Your task to perform on an android device: turn notification dots on Image 0: 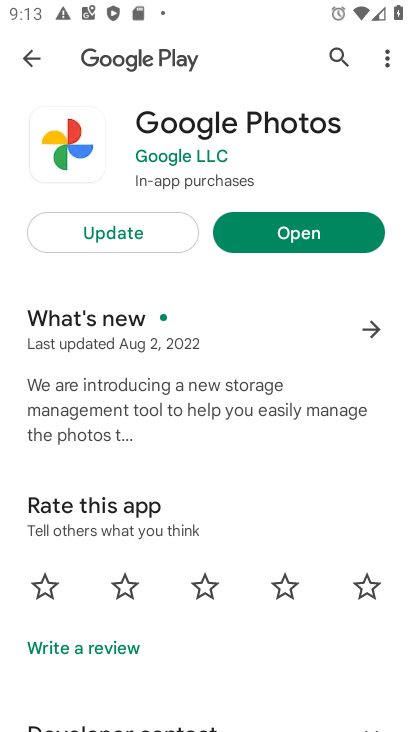
Step 0: press home button
Your task to perform on an android device: turn notification dots on Image 1: 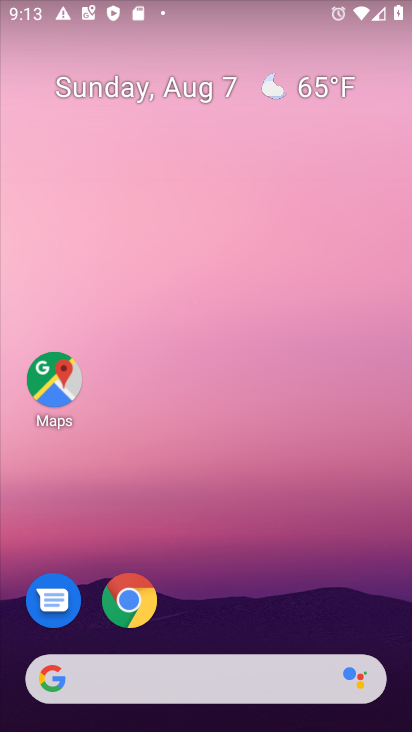
Step 1: drag from (203, 533) to (174, 203)
Your task to perform on an android device: turn notification dots on Image 2: 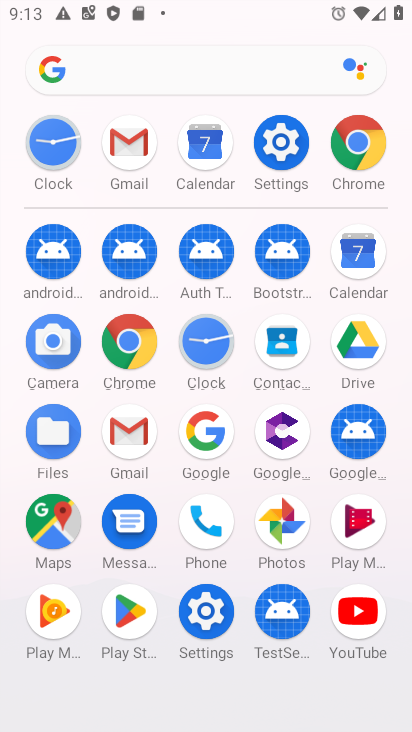
Step 2: click (202, 611)
Your task to perform on an android device: turn notification dots on Image 3: 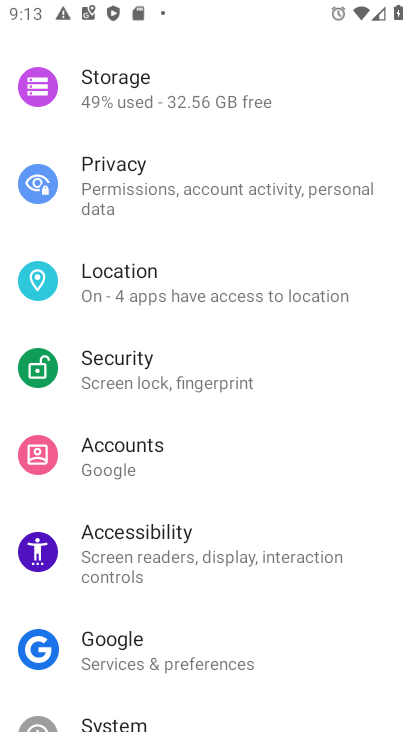
Step 3: drag from (192, 632) to (192, 360)
Your task to perform on an android device: turn notification dots on Image 4: 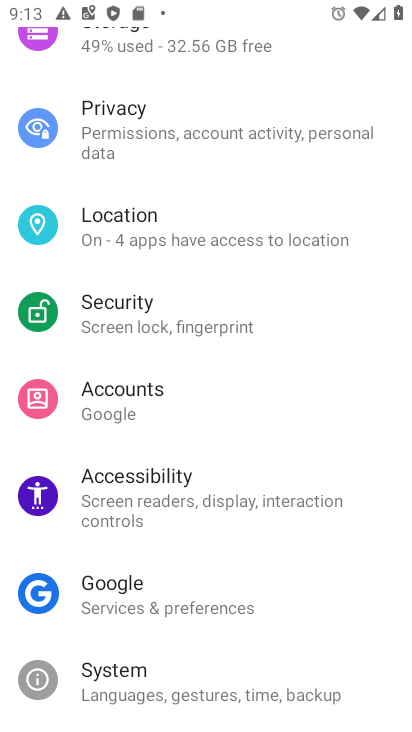
Step 4: drag from (245, 481) to (20, 652)
Your task to perform on an android device: turn notification dots on Image 5: 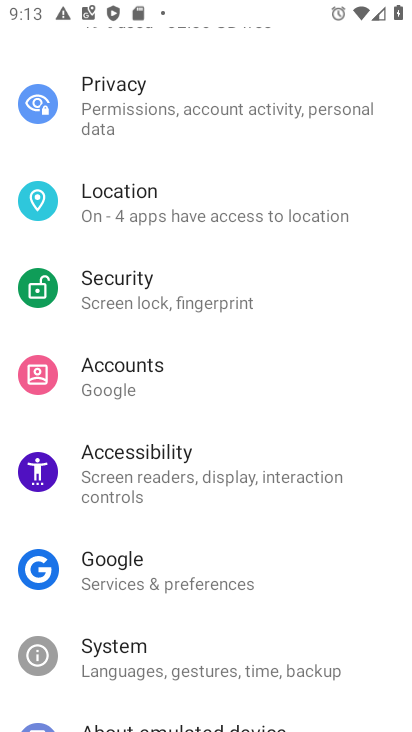
Step 5: drag from (135, 403) to (87, 608)
Your task to perform on an android device: turn notification dots on Image 6: 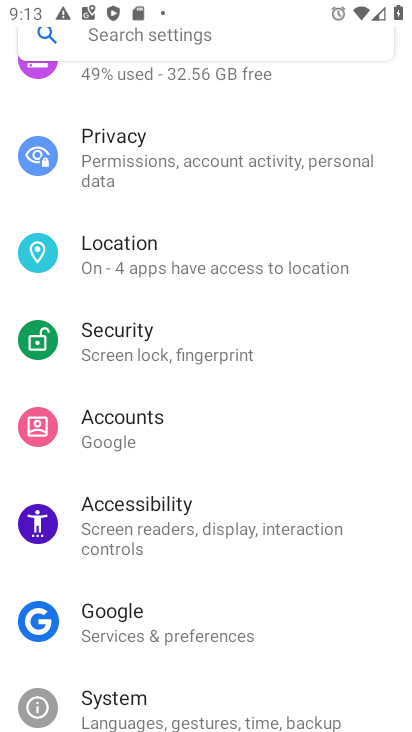
Step 6: drag from (201, 188) to (113, 720)
Your task to perform on an android device: turn notification dots on Image 7: 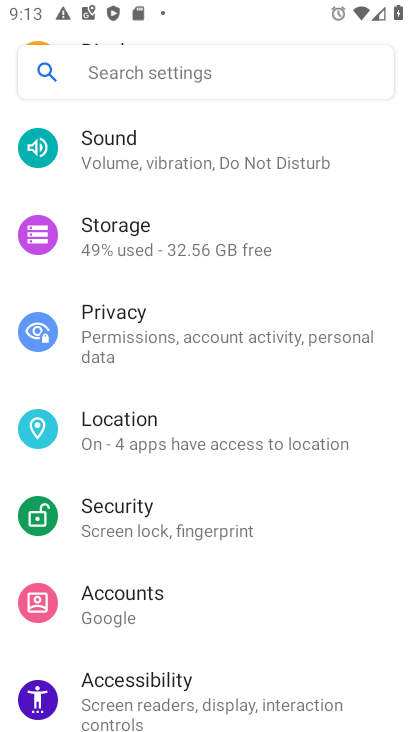
Step 7: drag from (245, 240) to (168, 509)
Your task to perform on an android device: turn notification dots on Image 8: 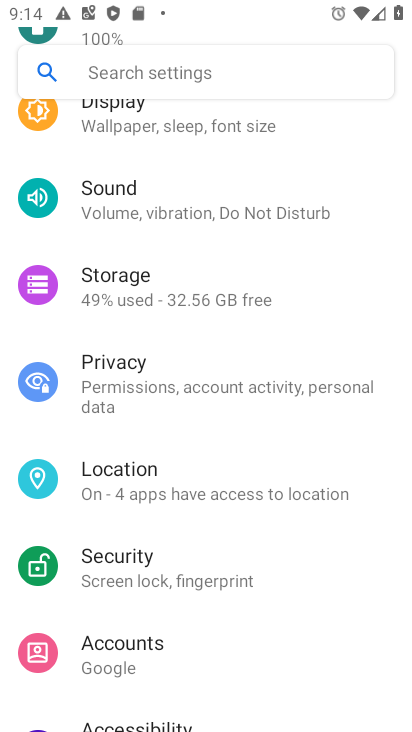
Step 8: drag from (225, 401) to (173, 702)
Your task to perform on an android device: turn notification dots on Image 9: 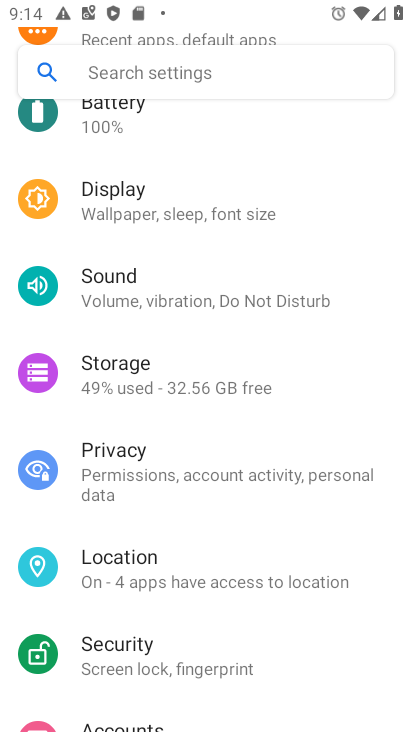
Step 9: drag from (146, 217) to (124, 706)
Your task to perform on an android device: turn notification dots on Image 10: 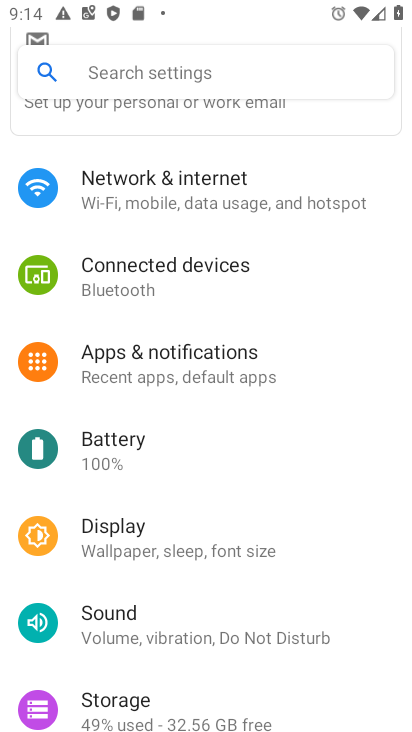
Step 10: click (219, 328)
Your task to perform on an android device: turn notification dots on Image 11: 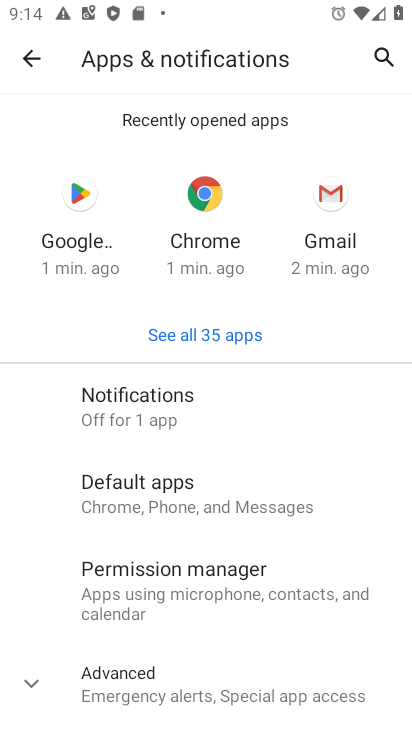
Step 11: drag from (145, 603) to (193, 344)
Your task to perform on an android device: turn notification dots on Image 12: 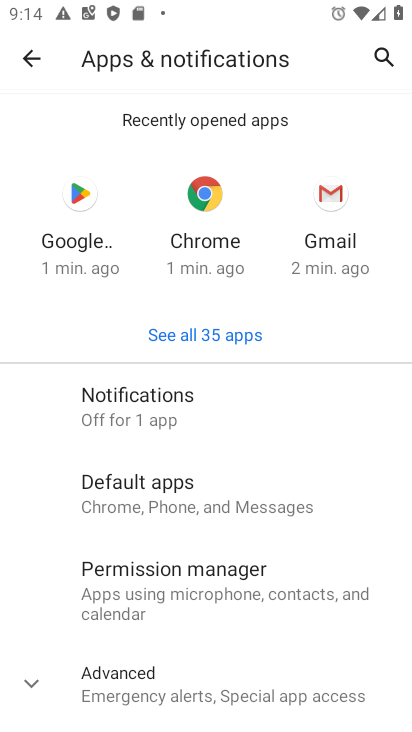
Step 12: click (113, 680)
Your task to perform on an android device: turn notification dots on Image 13: 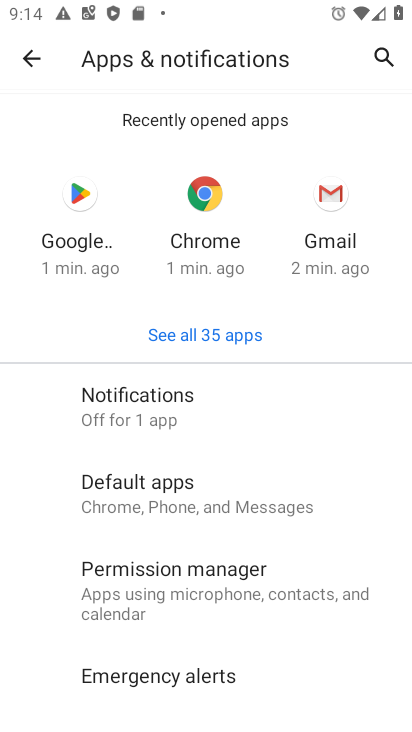
Step 13: drag from (302, 618) to (291, 353)
Your task to perform on an android device: turn notification dots on Image 14: 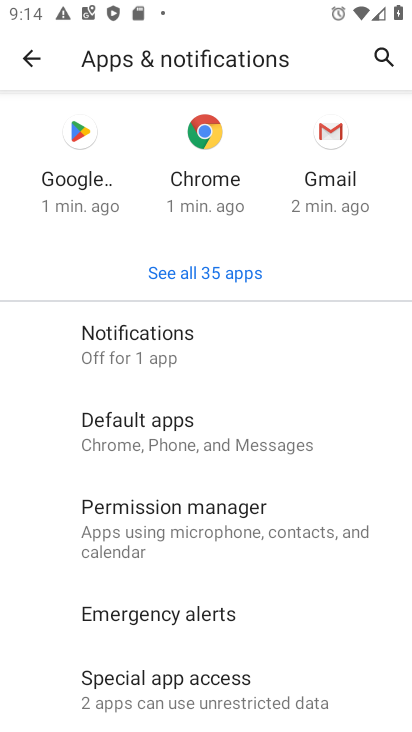
Step 14: click (163, 344)
Your task to perform on an android device: turn notification dots on Image 15: 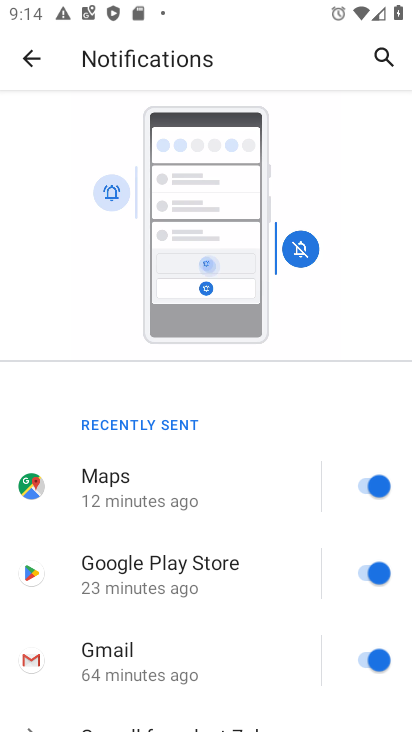
Step 15: drag from (272, 620) to (270, 399)
Your task to perform on an android device: turn notification dots on Image 16: 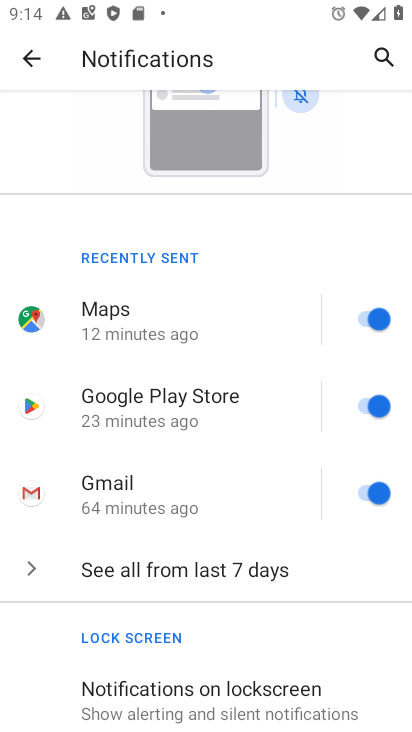
Step 16: drag from (203, 599) to (185, 215)
Your task to perform on an android device: turn notification dots on Image 17: 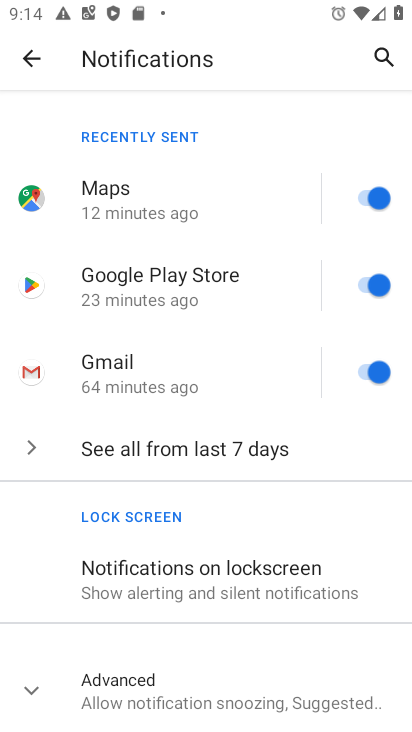
Step 17: drag from (171, 577) to (192, 141)
Your task to perform on an android device: turn notification dots on Image 18: 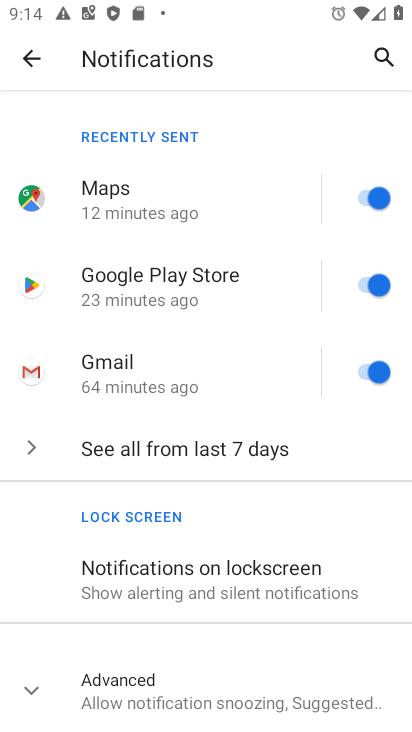
Step 18: click (104, 694)
Your task to perform on an android device: turn notification dots on Image 19: 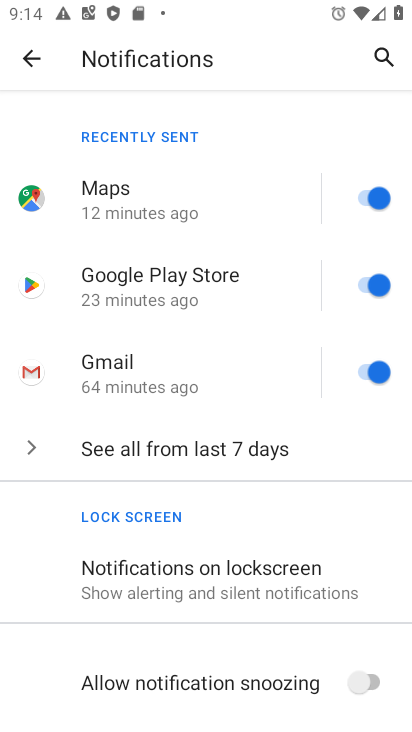
Step 19: drag from (156, 572) to (214, 332)
Your task to perform on an android device: turn notification dots on Image 20: 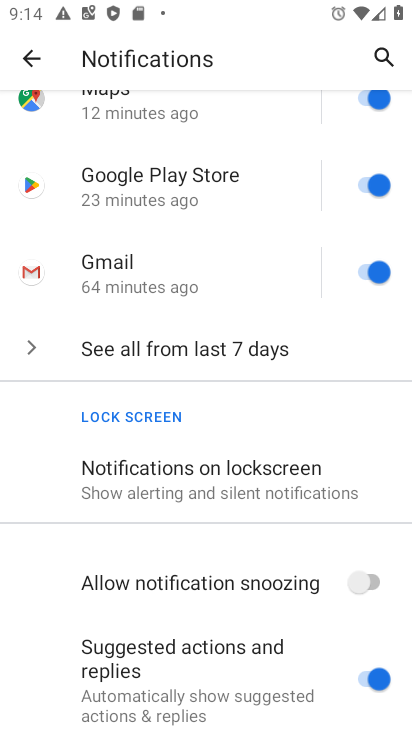
Step 20: drag from (229, 586) to (260, 285)
Your task to perform on an android device: turn notification dots on Image 21: 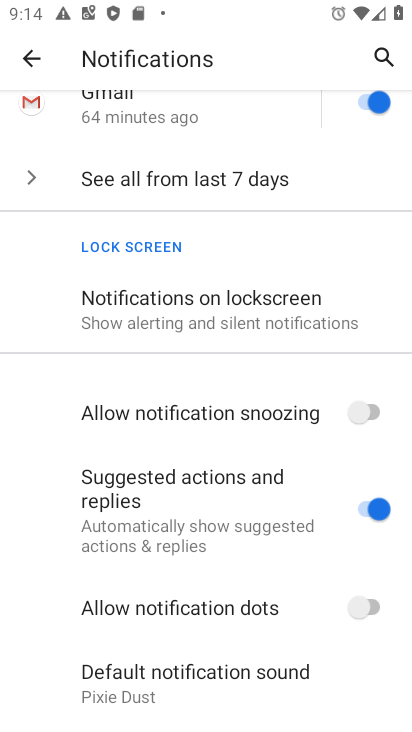
Step 21: click (376, 610)
Your task to perform on an android device: turn notification dots on Image 22: 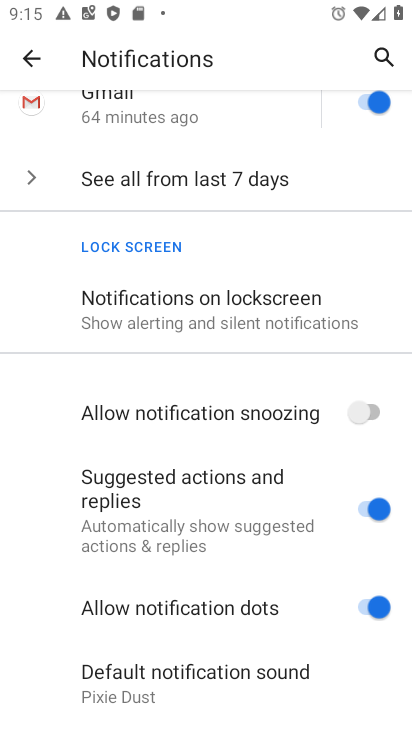
Step 22: task complete